Your task to perform on an android device: snooze an email in the gmail app Image 0: 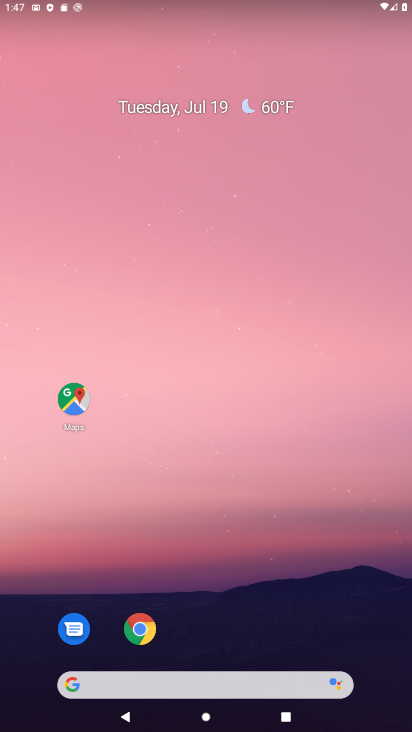
Step 0: drag from (385, 636) to (315, 334)
Your task to perform on an android device: snooze an email in the gmail app Image 1: 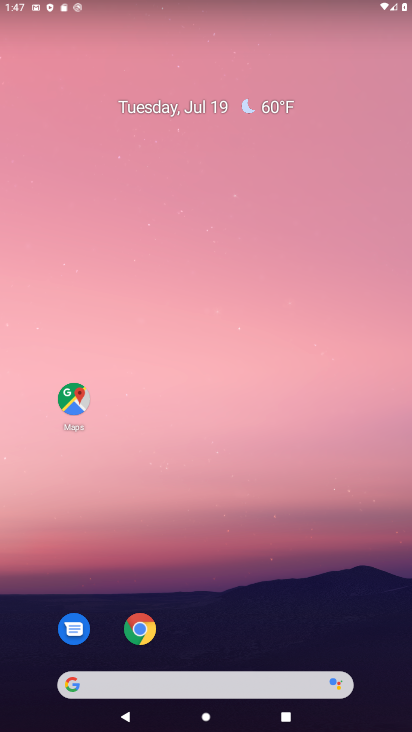
Step 1: drag from (355, 650) to (346, 421)
Your task to perform on an android device: snooze an email in the gmail app Image 2: 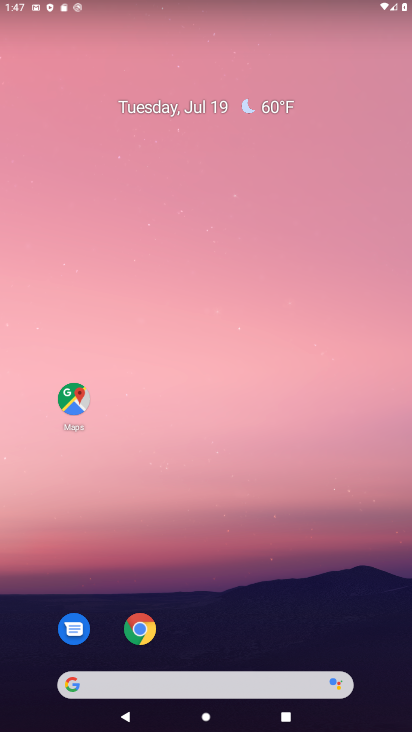
Step 2: drag from (358, 634) to (322, 60)
Your task to perform on an android device: snooze an email in the gmail app Image 3: 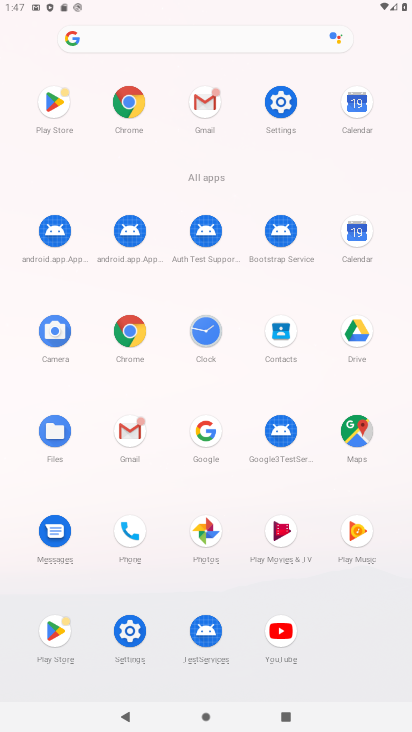
Step 3: click (129, 432)
Your task to perform on an android device: snooze an email in the gmail app Image 4: 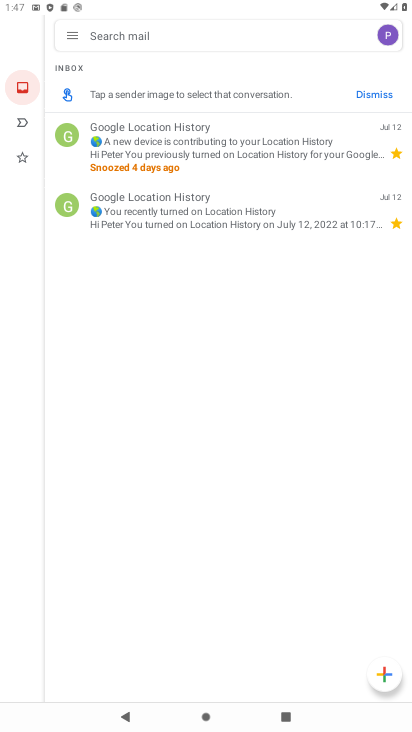
Step 4: click (70, 36)
Your task to perform on an android device: snooze an email in the gmail app Image 5: 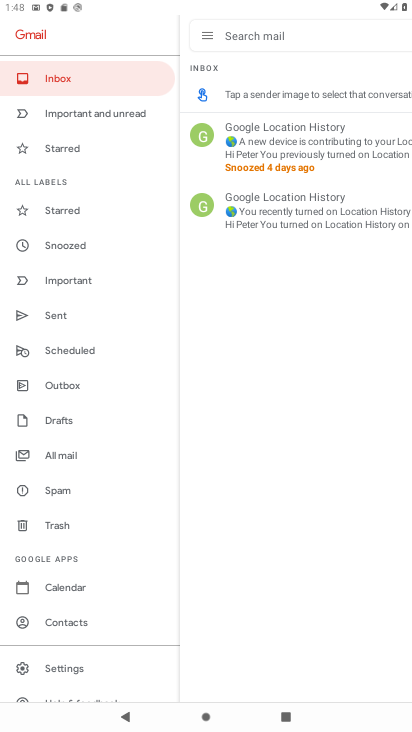
Step 5: click (286, 141)
Your task to perform on an android device: snooze an email in the gmail app Image 6: 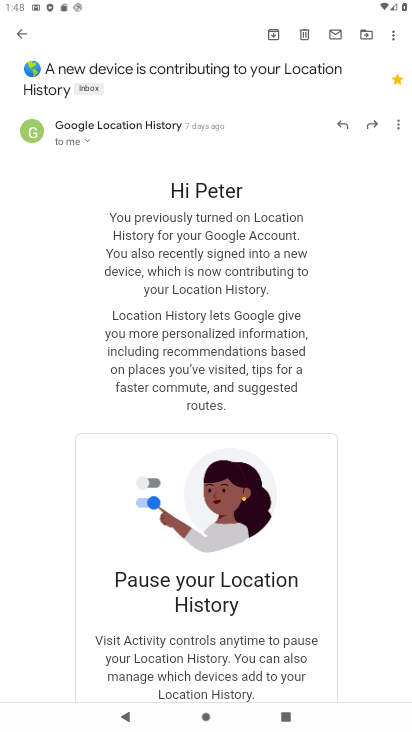
Step 6: press back button
Your task to perform on an android device: snooze an email in the gmail app Image 7: 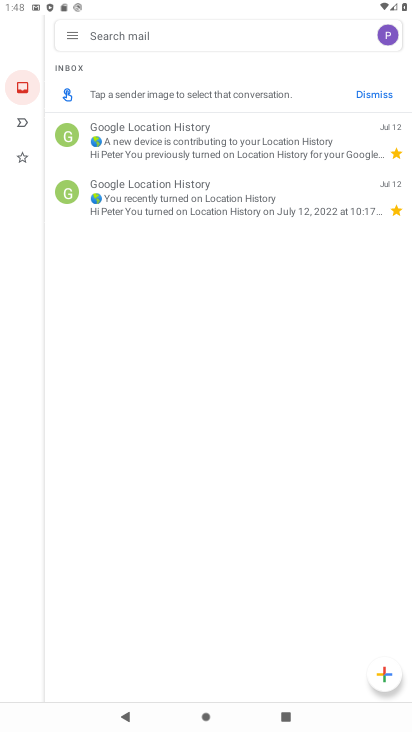
Step 7: click (166, 143)
Your task to perform on an android device: snooze an email in the gmail app Image 8: 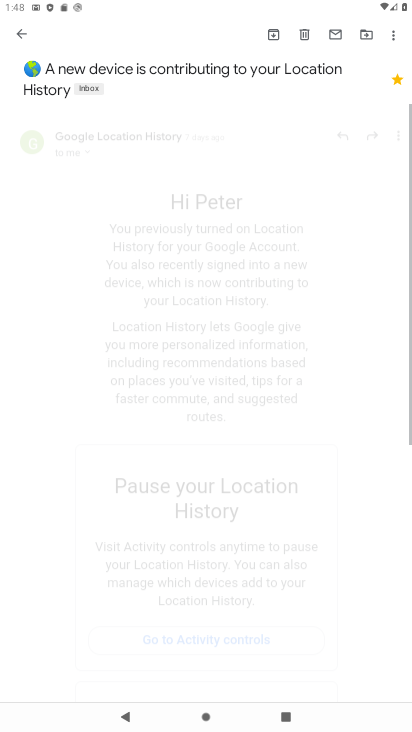
Step 8: click (390, 37)
Your task to perform on an android device: snooze an email in the gmail app Image 9: 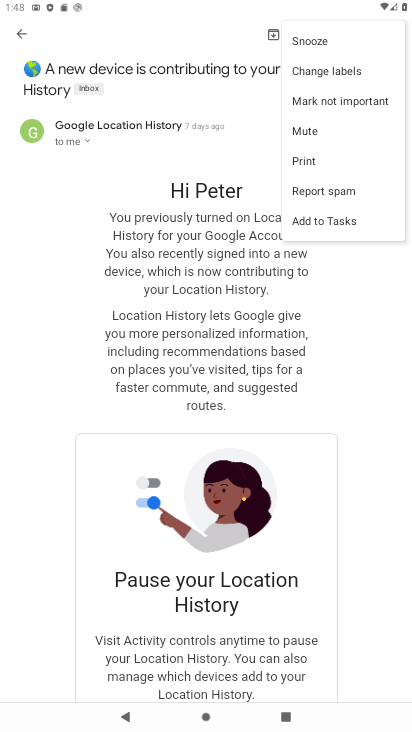
Step 9: click (303, 42)
Your task to perform on an android device: snooze an email in the gmail app Image 10: 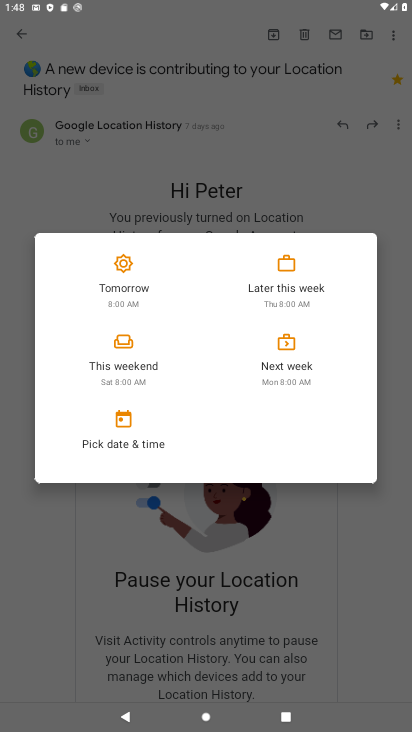
Step 10: click (123, 285)
Your task to perform on an android device: snooze an email in the gmail app Image 11: 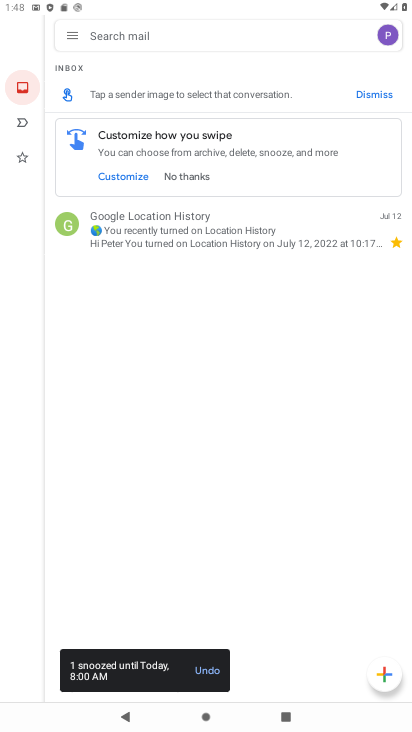
Step 11: task complete